Your task to perform on an android device: Open network settings Image 0: 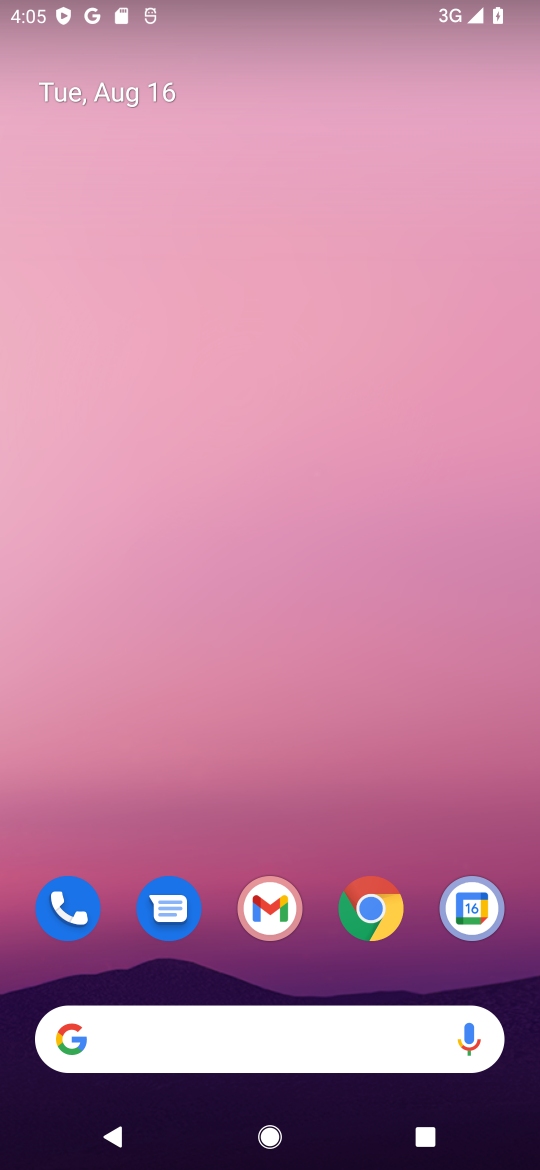
Step 0: drag from (310, 595) to (389, 20)
Your task to perform on an android device: Open network settings Image 1: 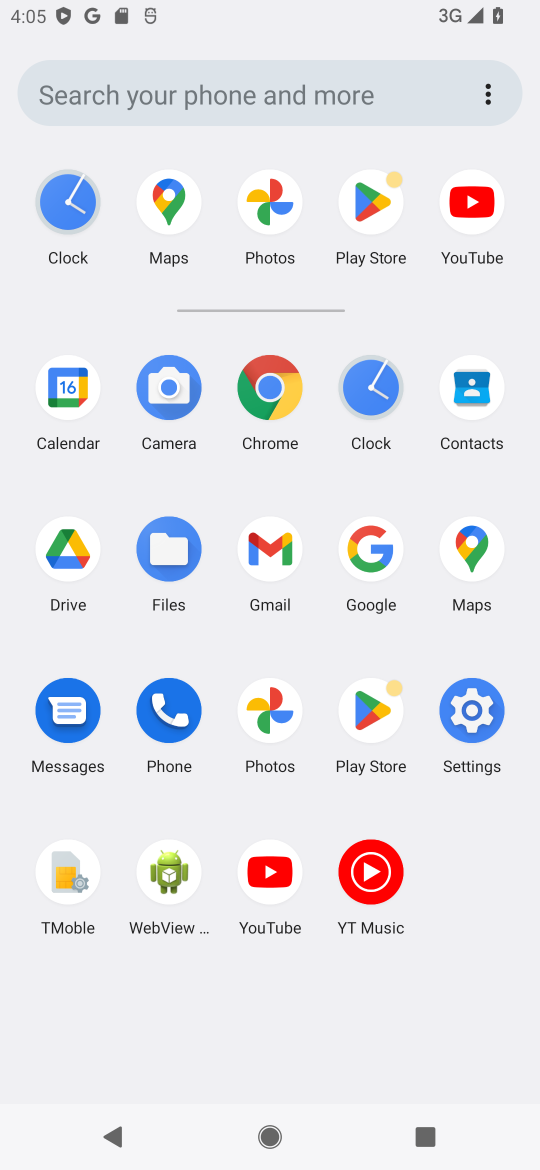
Step 1: click (467, 715)
Your task to perform on an android device: Open network settings Image 2: 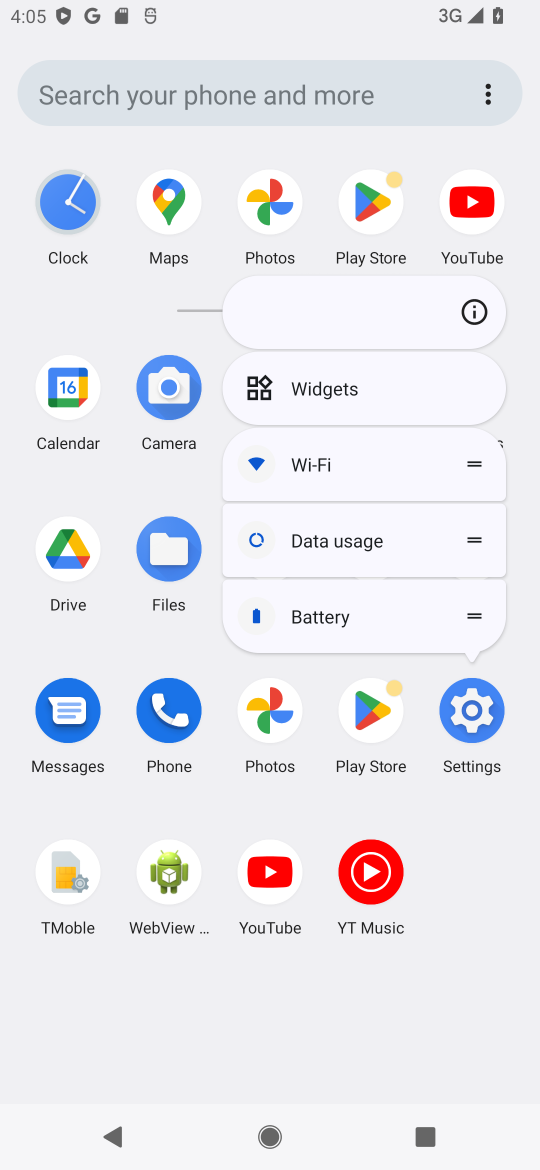
Step 2: click (480, 718)
Your task to perform on an android device: Open network settings Image 3: 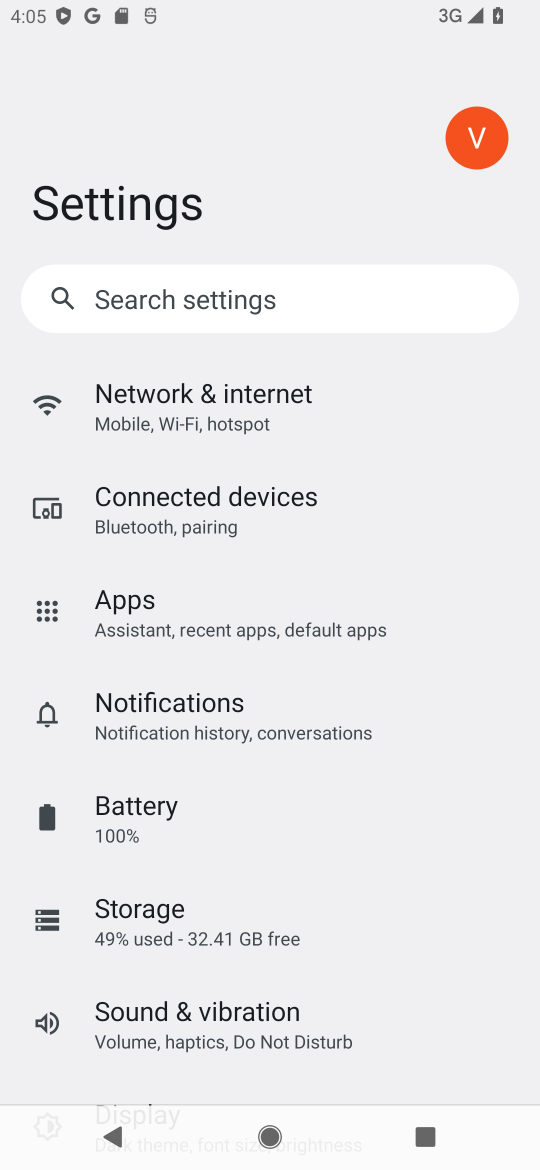
Step 3: click (213, 414)
Your task to perform on an android device: Open network settings Image 4: 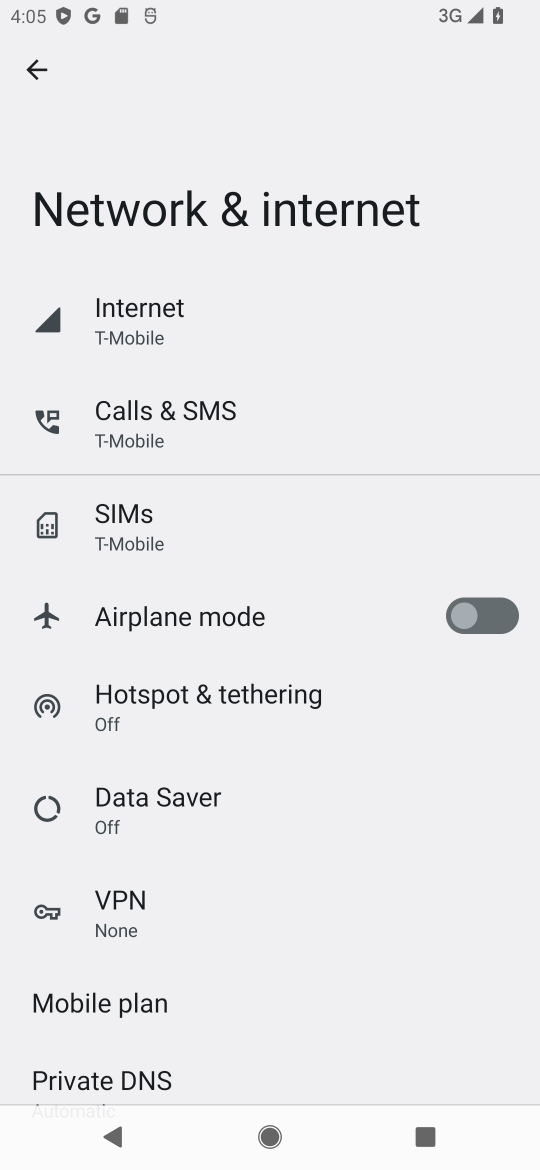
Step 4: task complete